Your task to perform on an android device: Go to Android settings Image 0: 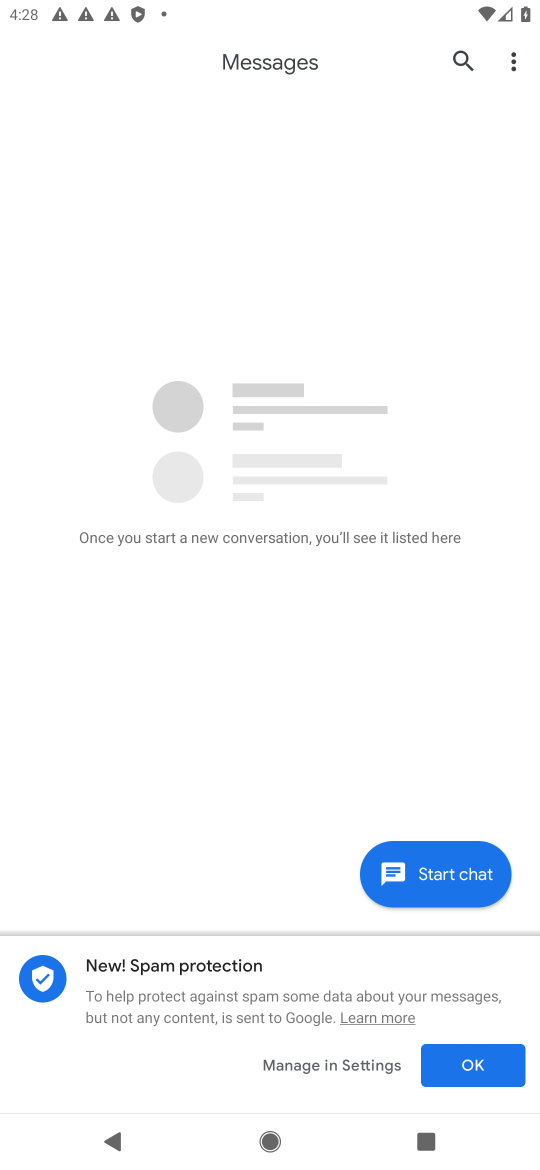
Step 0: press home button
Your task to perform on an android device: Go to Android settings Image 1: 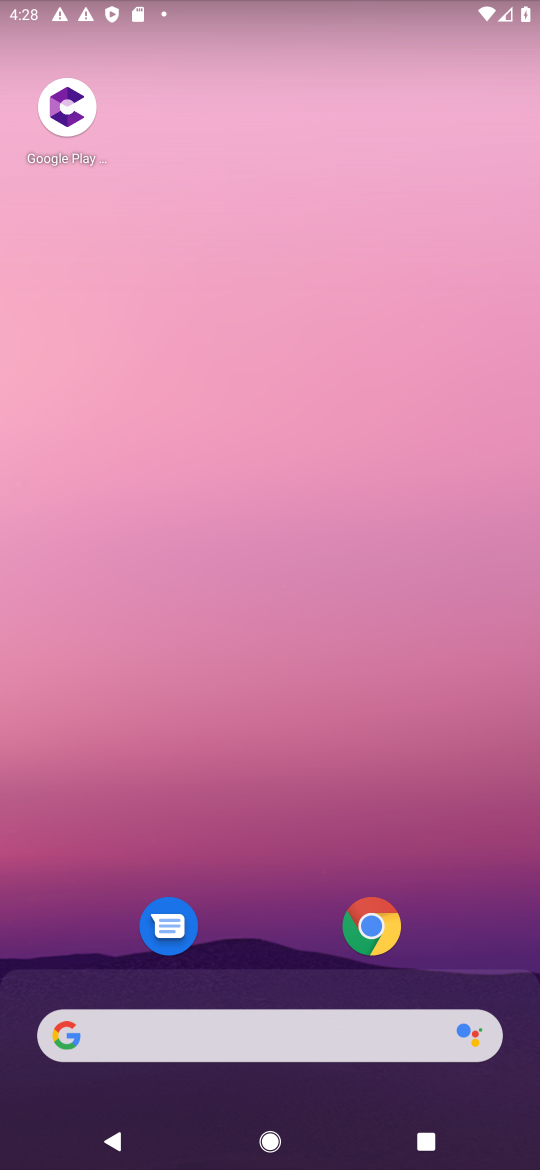
Step 1: drag from (259, 902) to (279, 72)
Your task to perform on an android device: Go to Android settings Image 2: 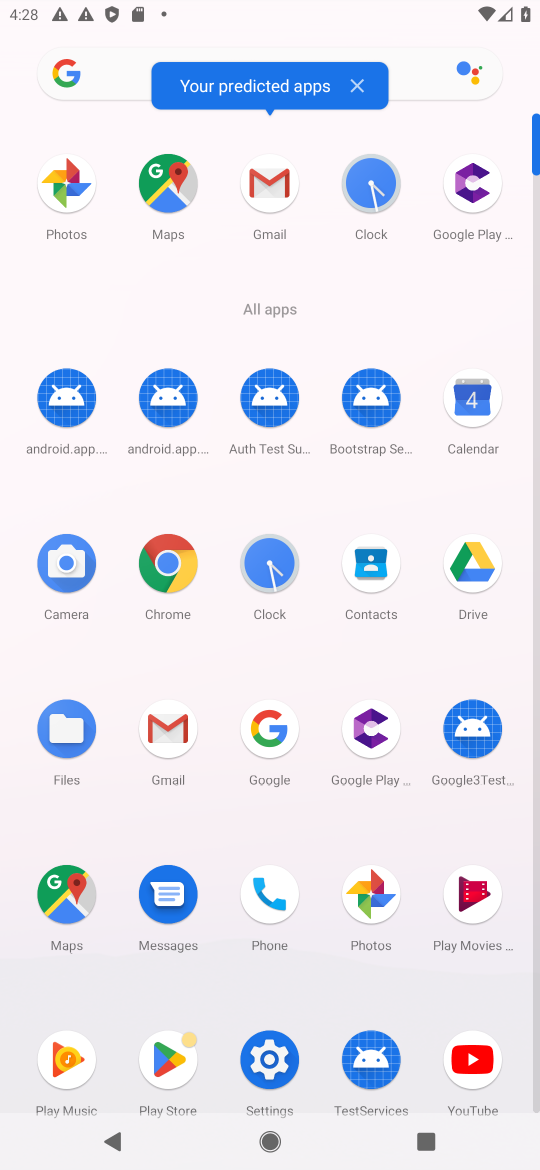
Step 2: click (264, 1056)
Your task to perform on an android device: Go to Android settings Image 3: 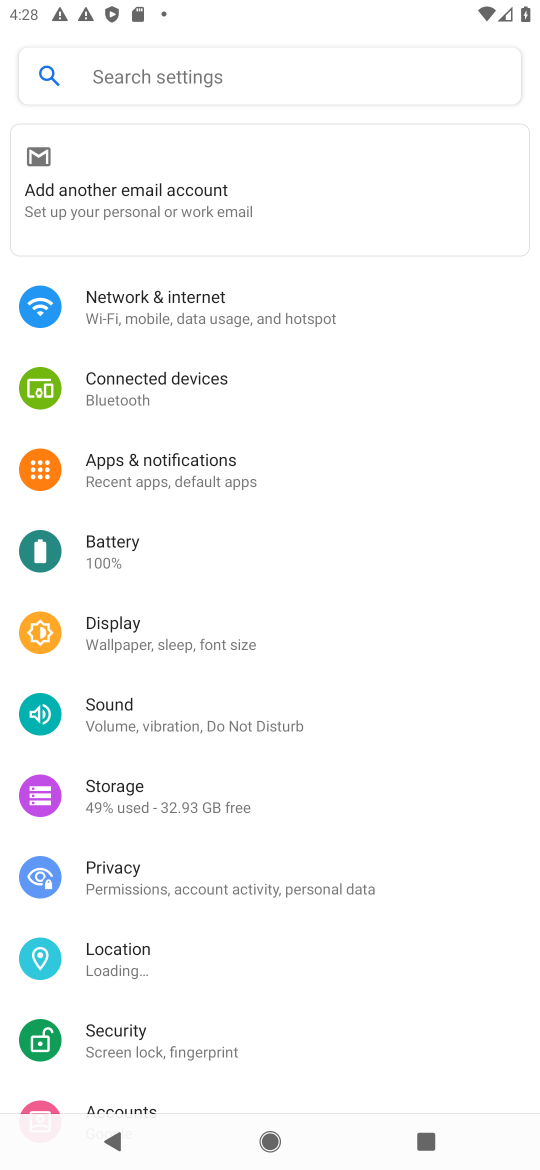
Step 3: task complete